Your task to perform on an android device: What's the weather? Image 0: 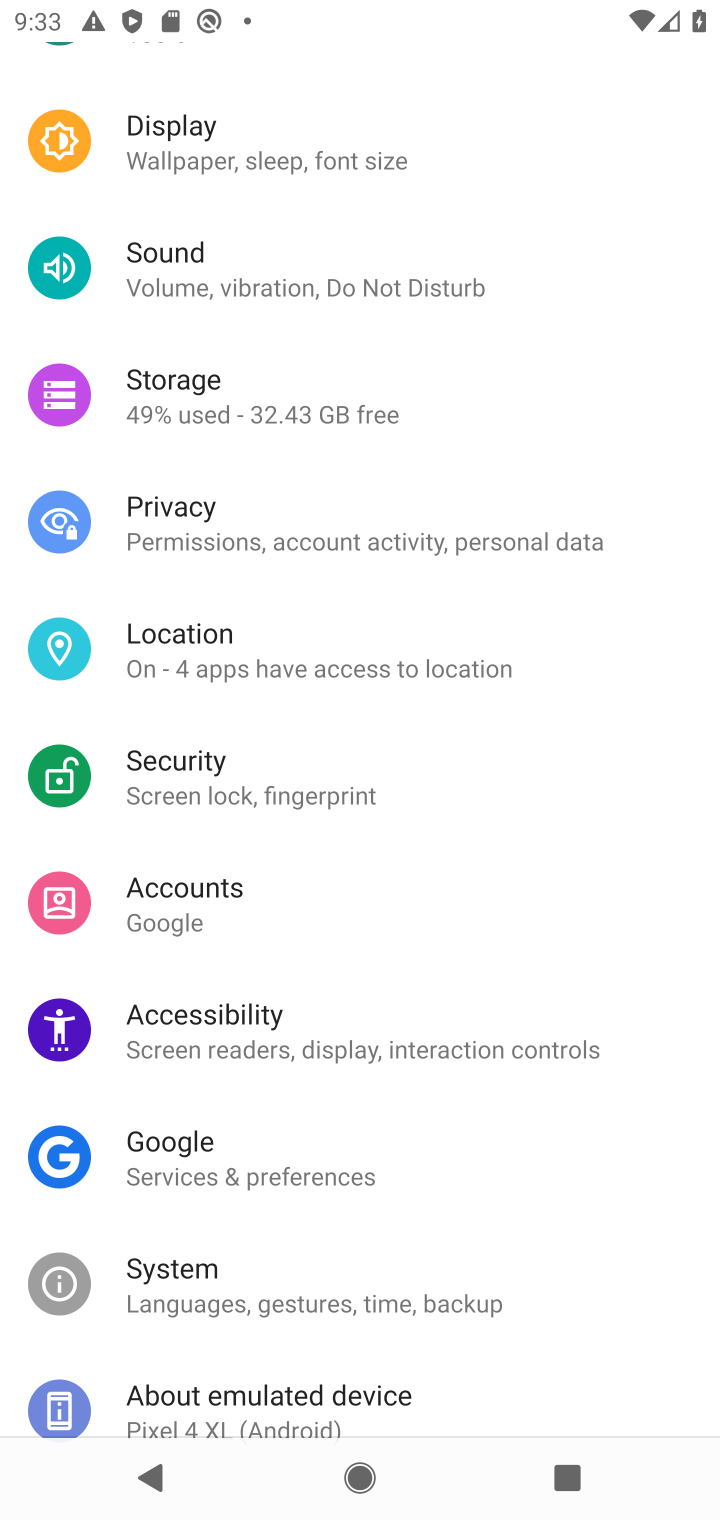
Step 0: press home button
Your task to perform on an android device: What's the weather? Image 1: 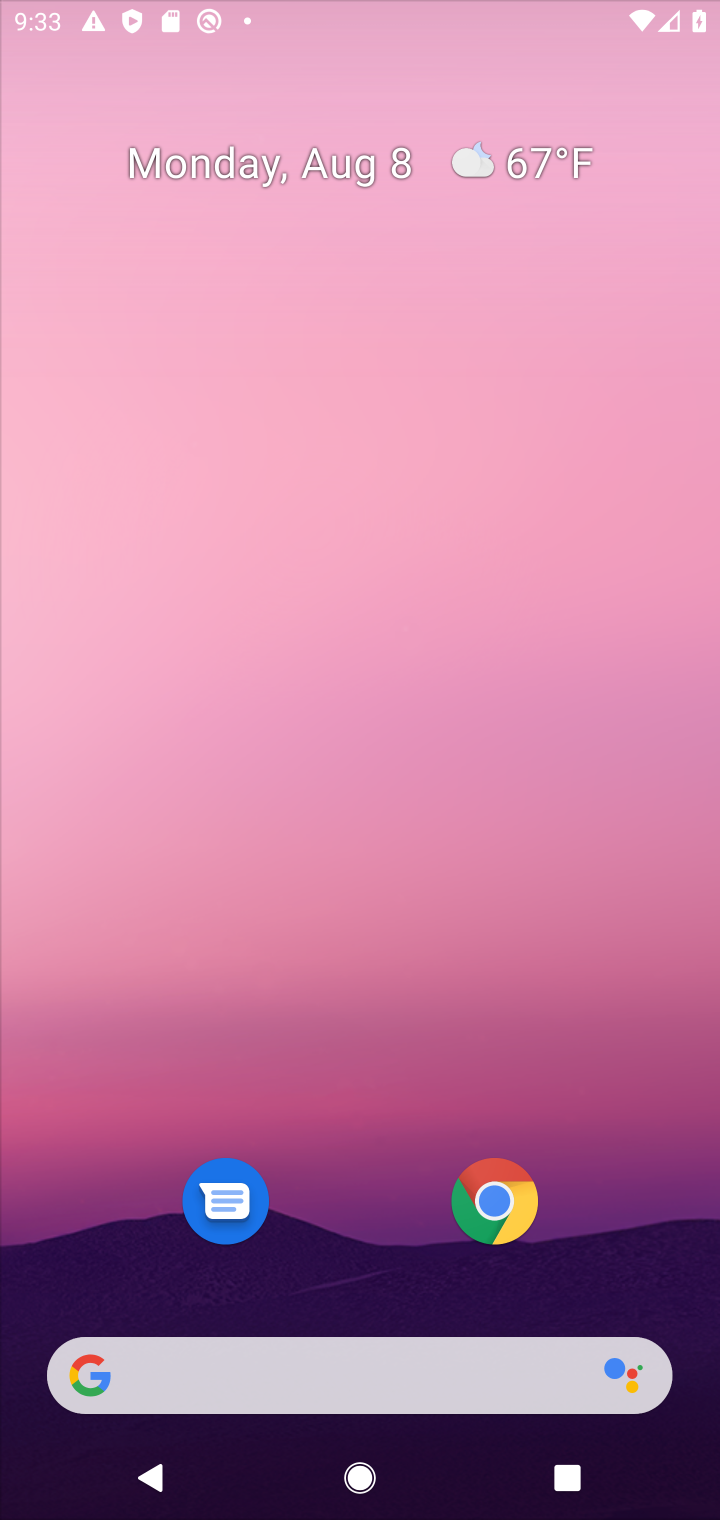
Step 1: press home button
Your task to perform on an android device: What's the weather? Image 2: 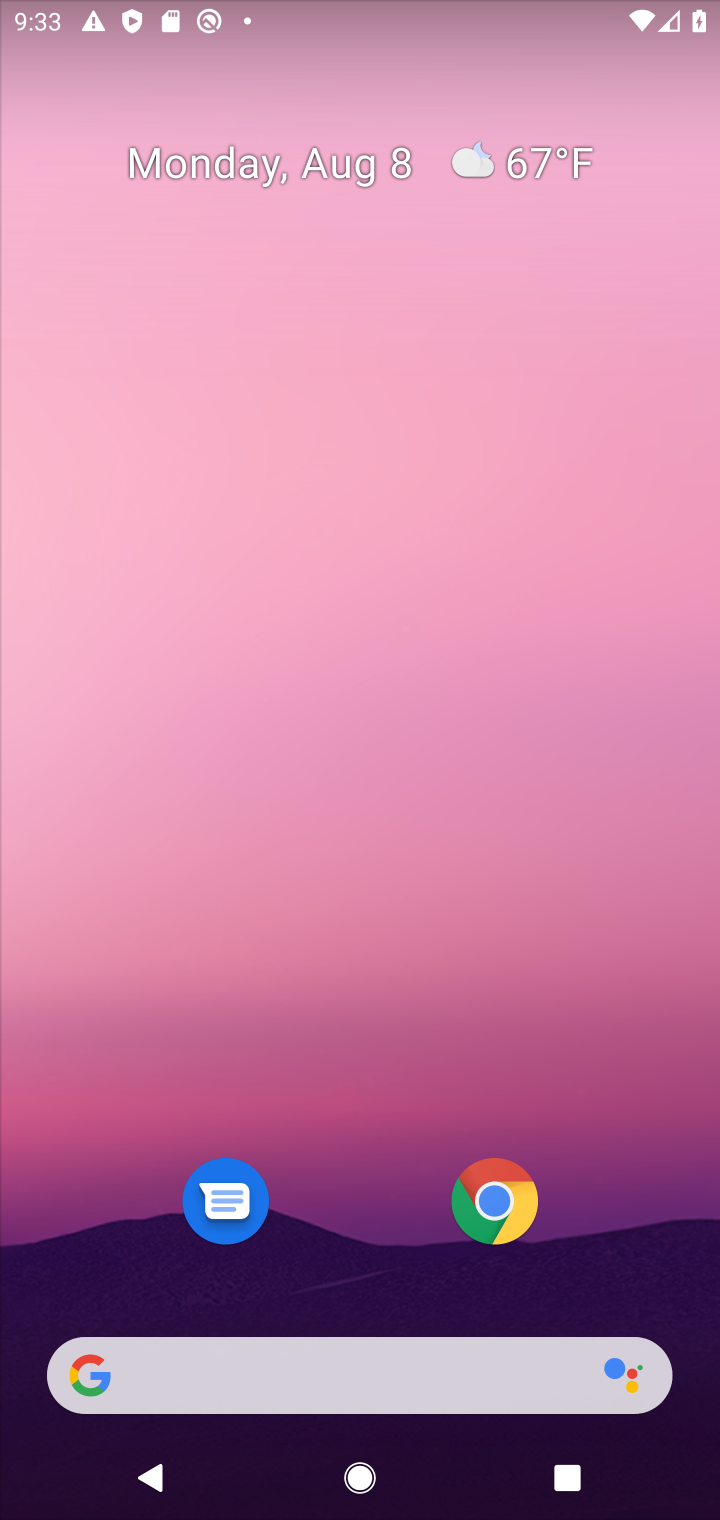
Step 2: click (392, 1377)
Your task to perform on an android device: What's the weather? Image 3: 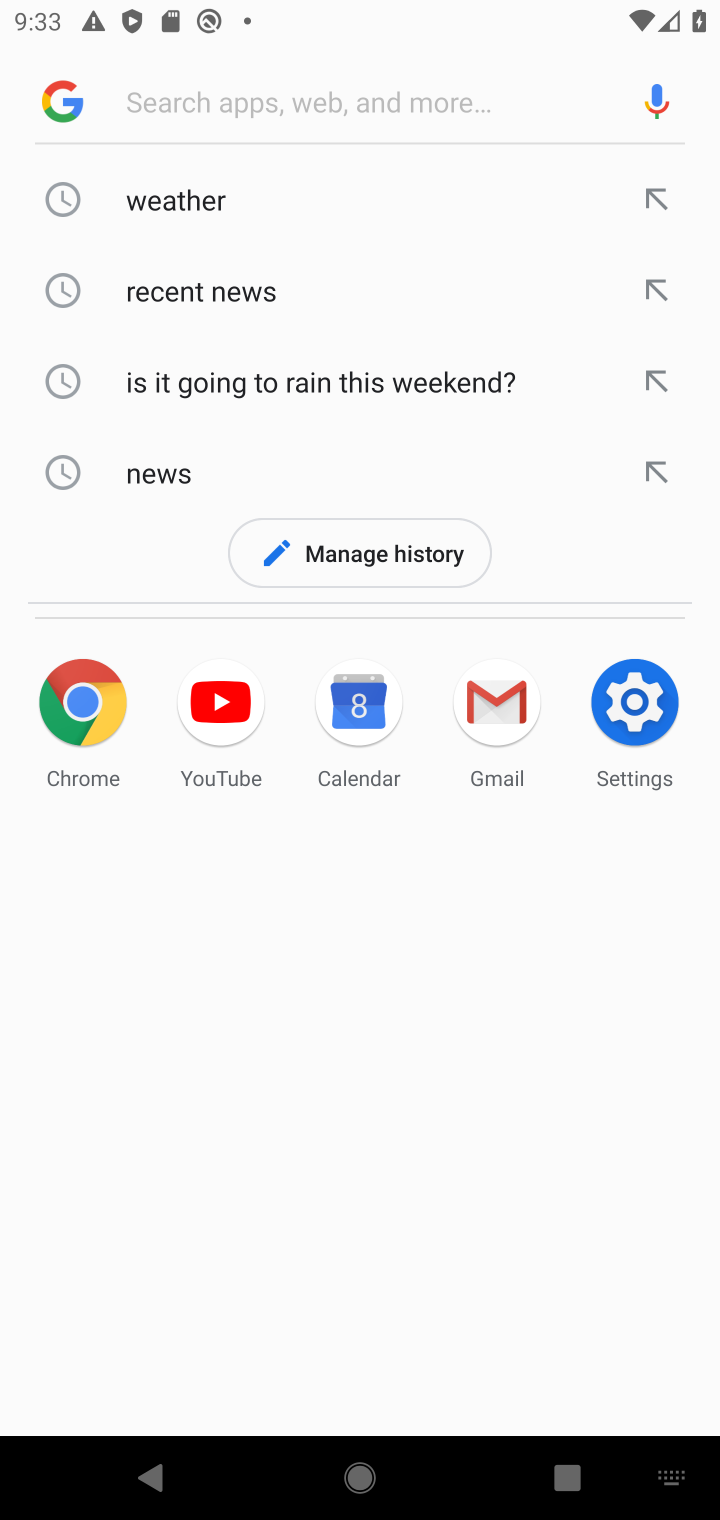
Step 3: click (214, 193)
Your task to perform on an android device: What's the weather? Image 4: 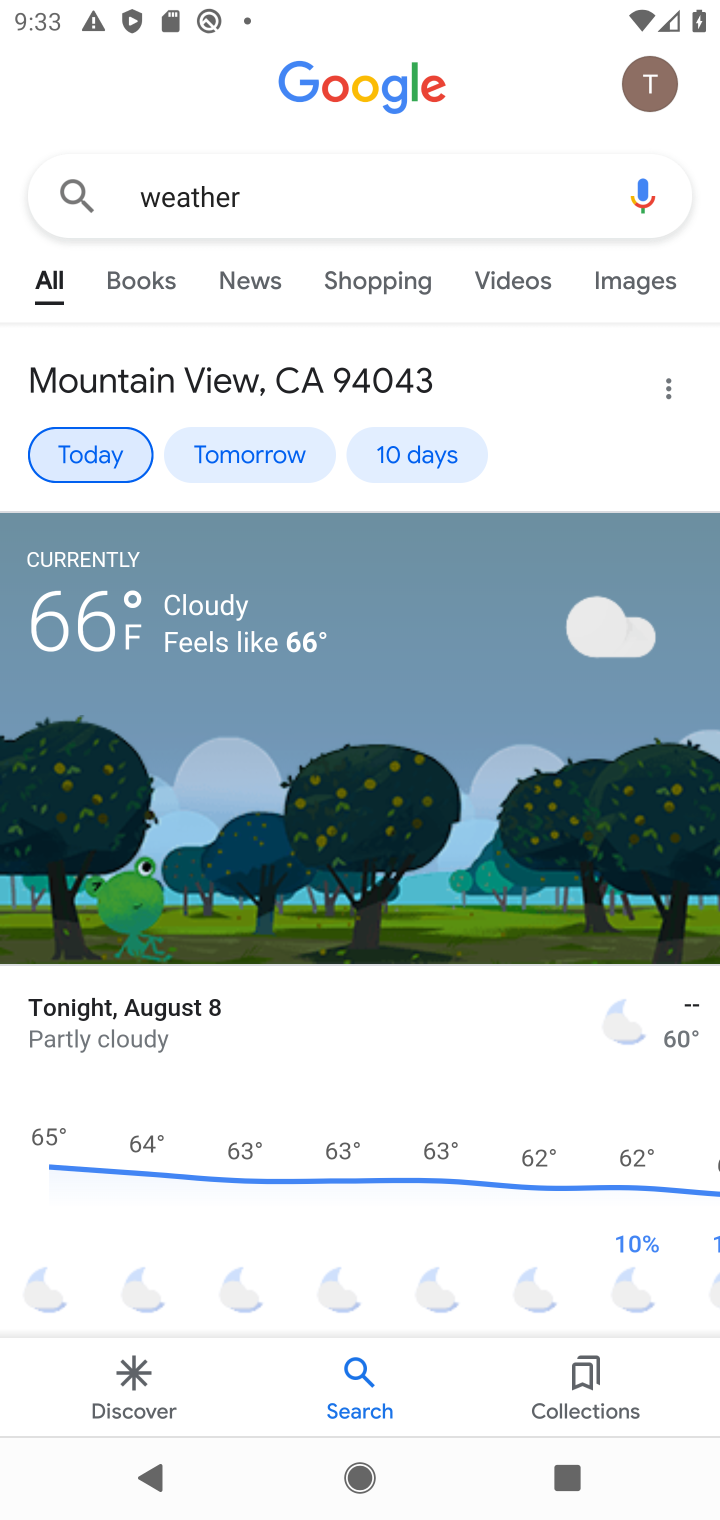
Step 4: task complete